Your task to perform on an android device: show emergency info Image 0: 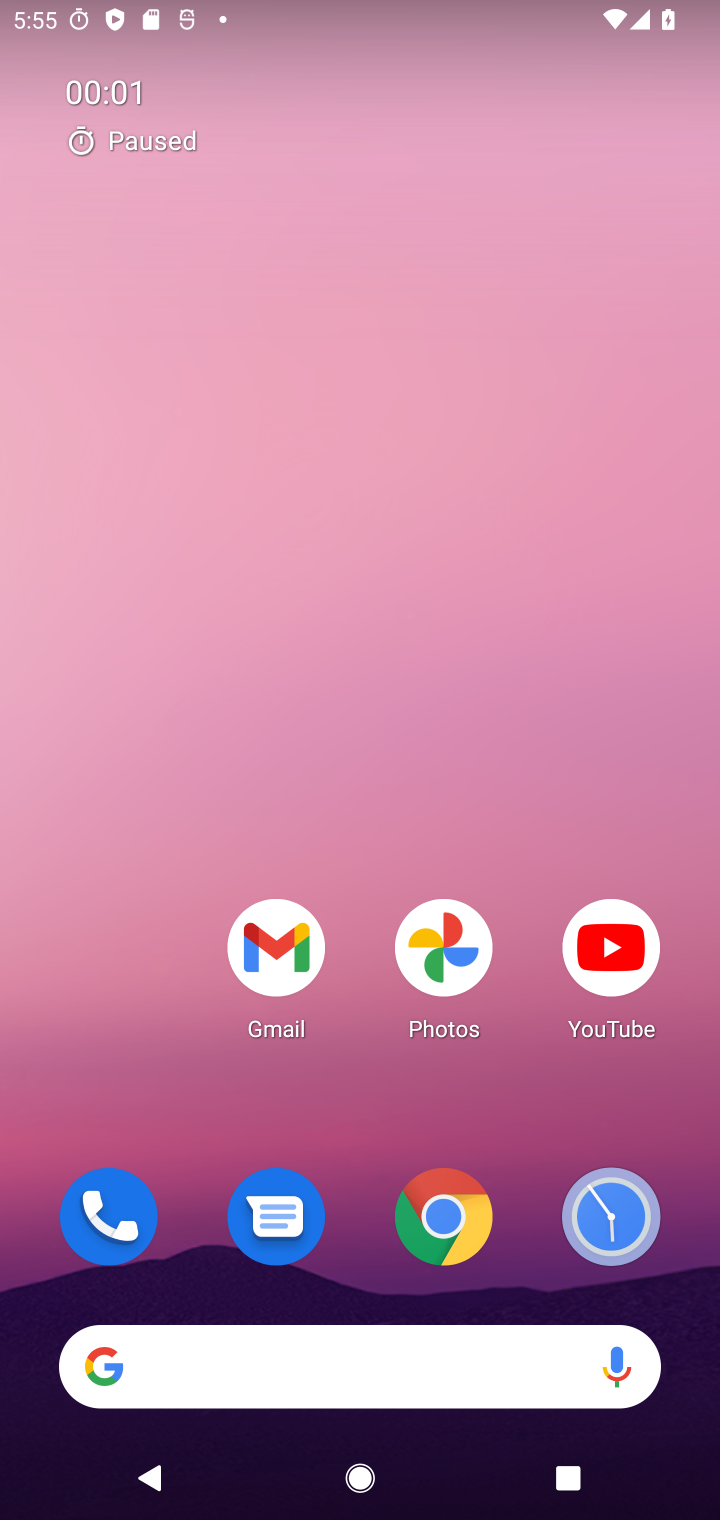
Step 0: drag from (343, 1105) to (501, 112)
Your task to perform on an android device: show emergency info Image 1: 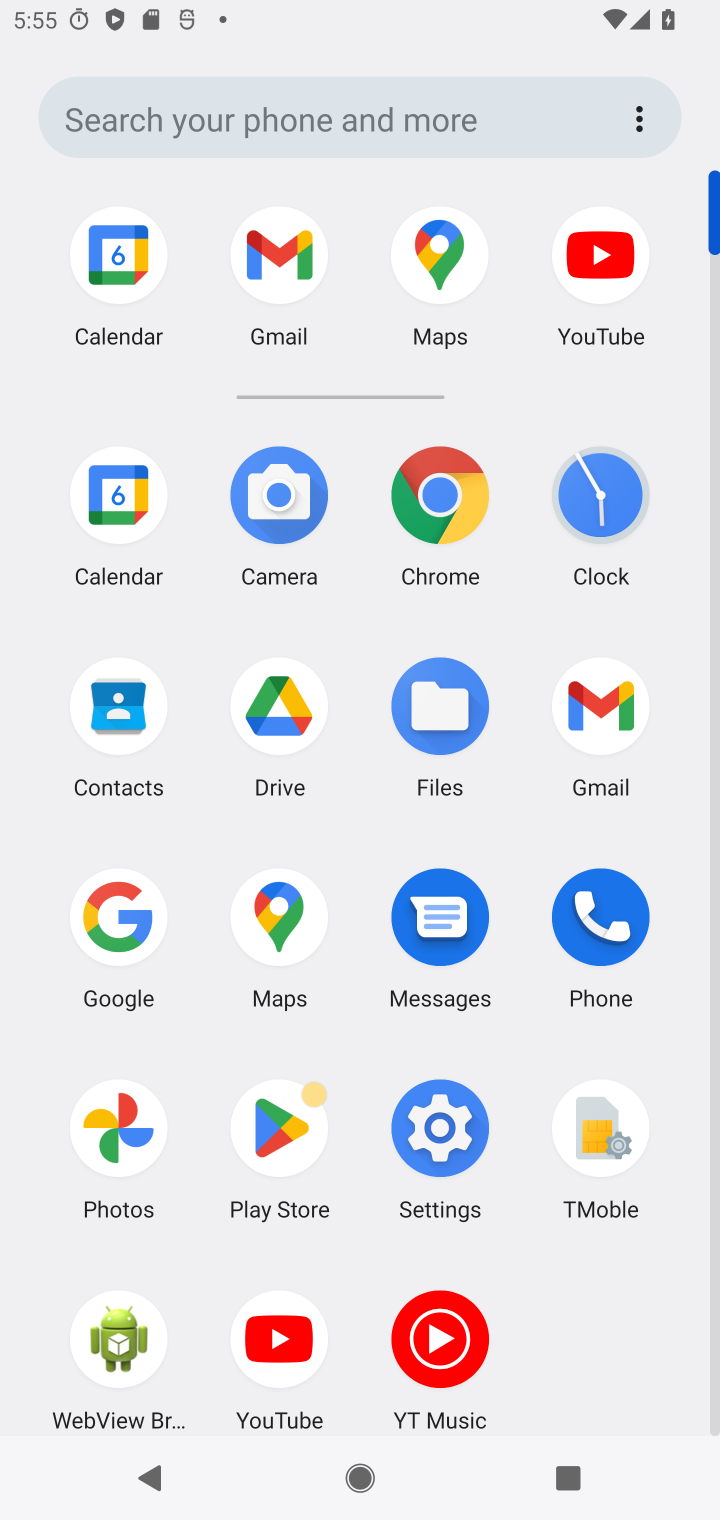
Step 1: click (463, 1123)
Your task to perform on an android device: show emergency info Image 2: 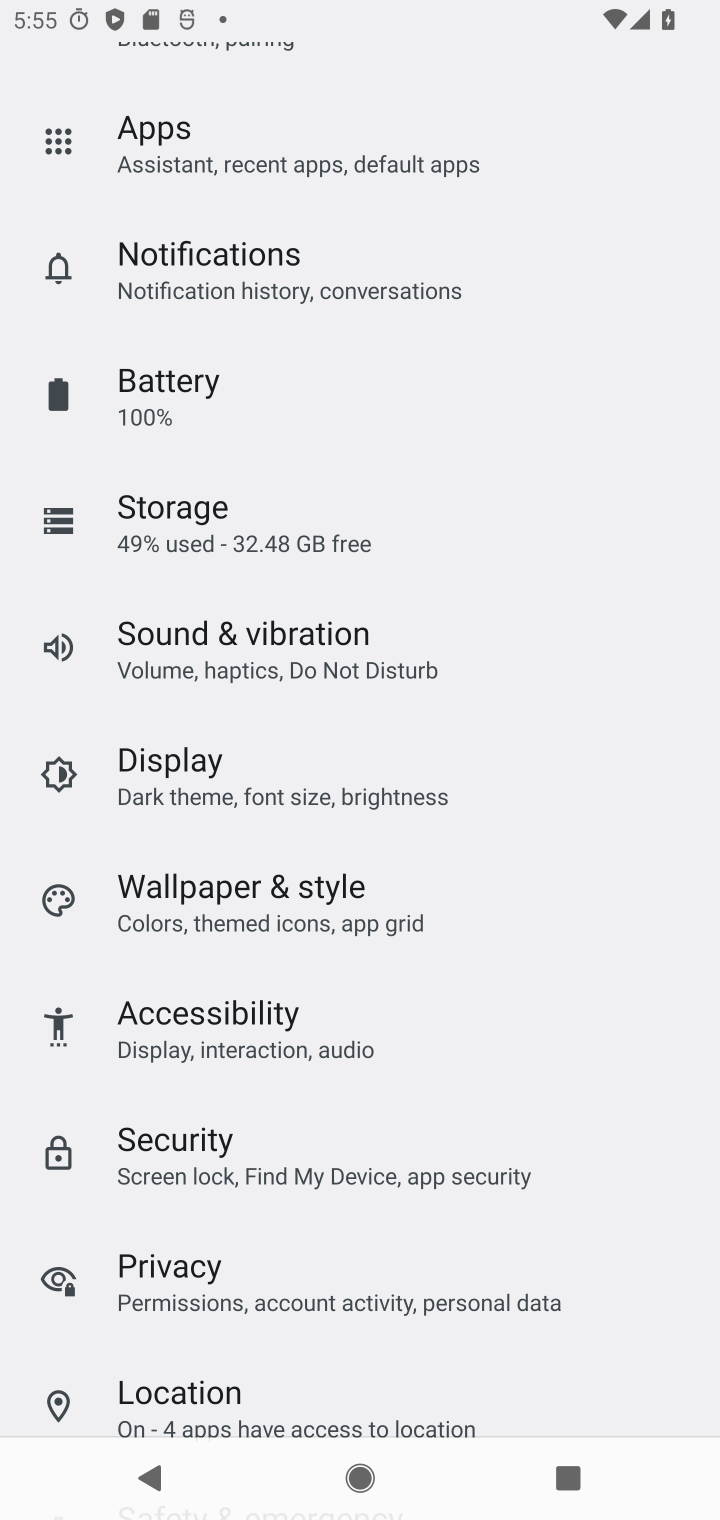
Step 2: drag from (360, 1196) to (405, 362)
Your task to perform on an android device: show emergency info Image 3: 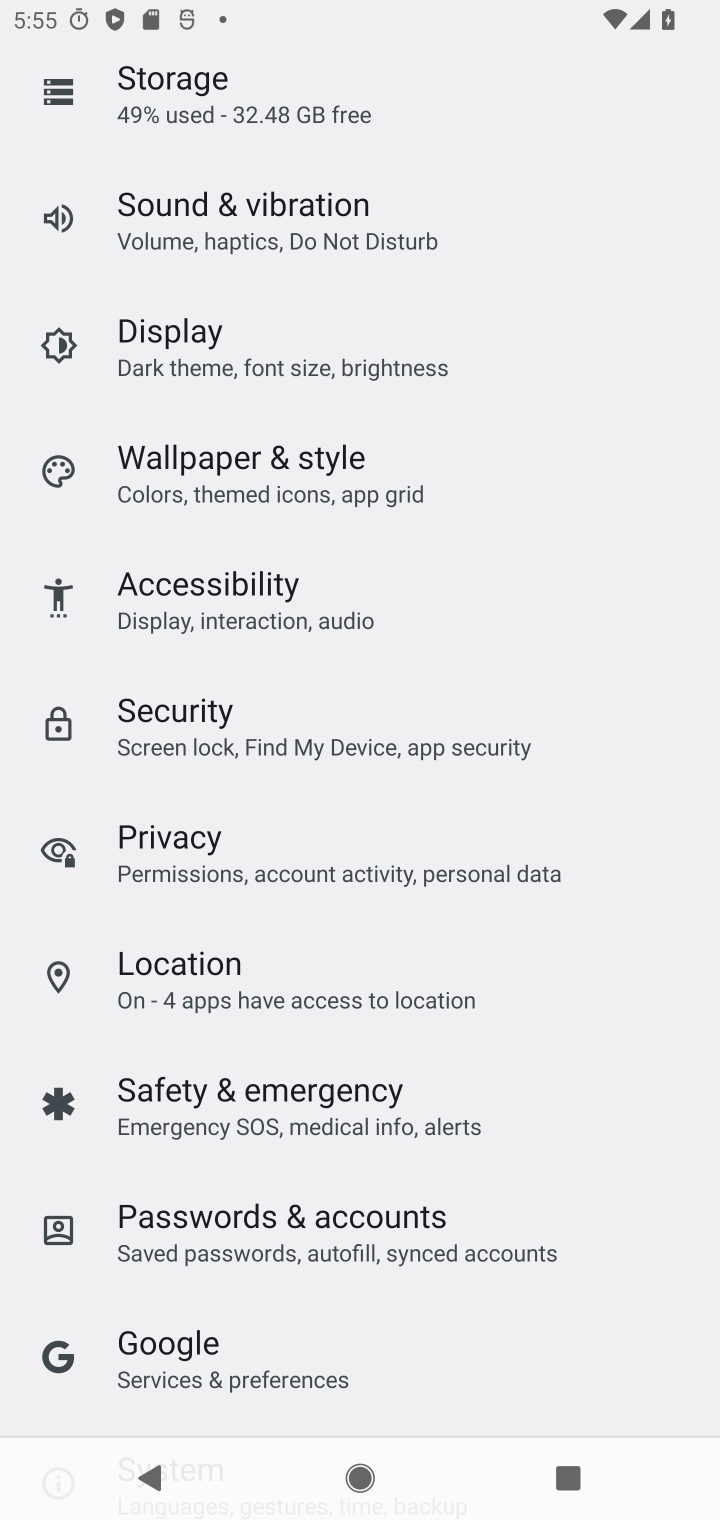
Step 3: drag from (473, 1319) to (536, 496)
Your task to perform on an android device: show emergency info Image 4: 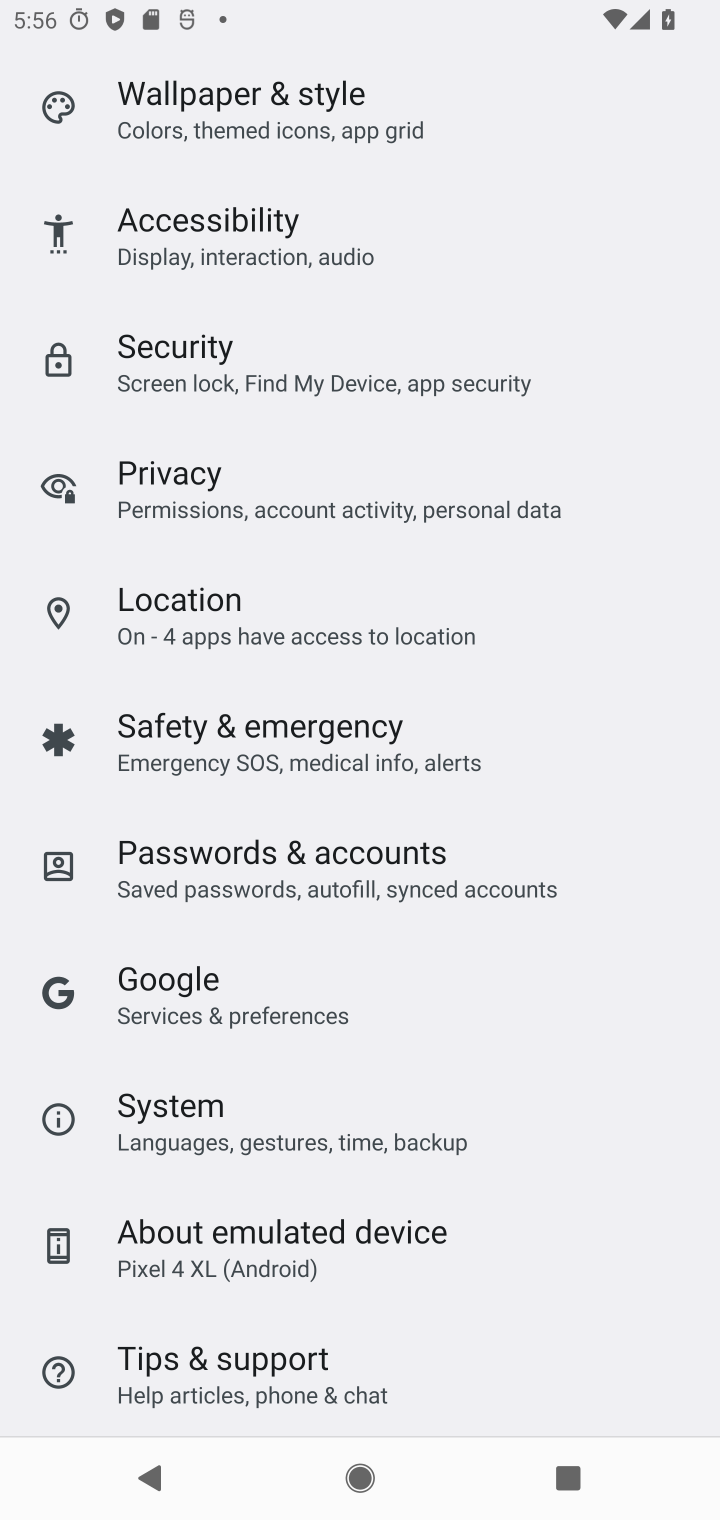
Step 4: click (288, 740)
Your task to perform on an android device: show emergency info Image 5: 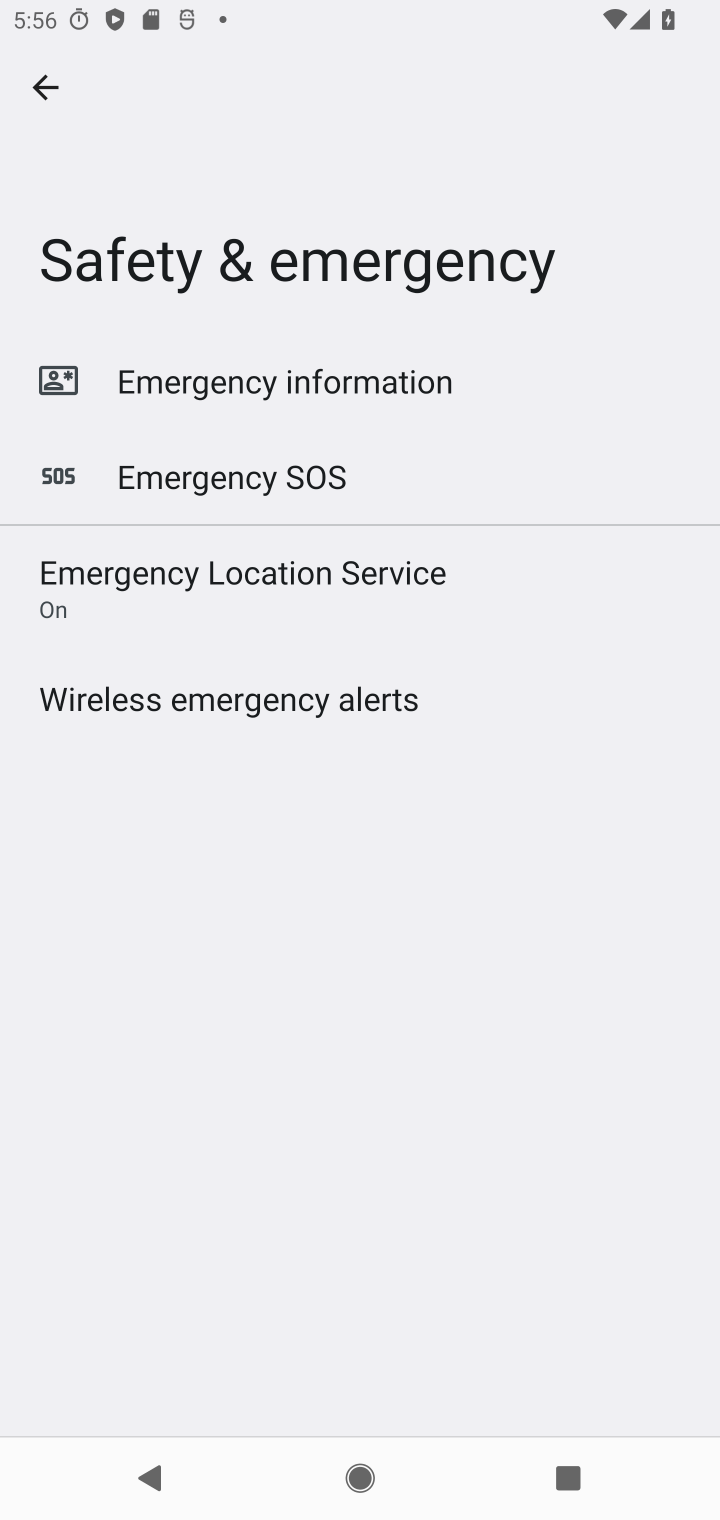
Step 5: click (267, 391)
Your task to perform on an android device: show emergency info Image 6: 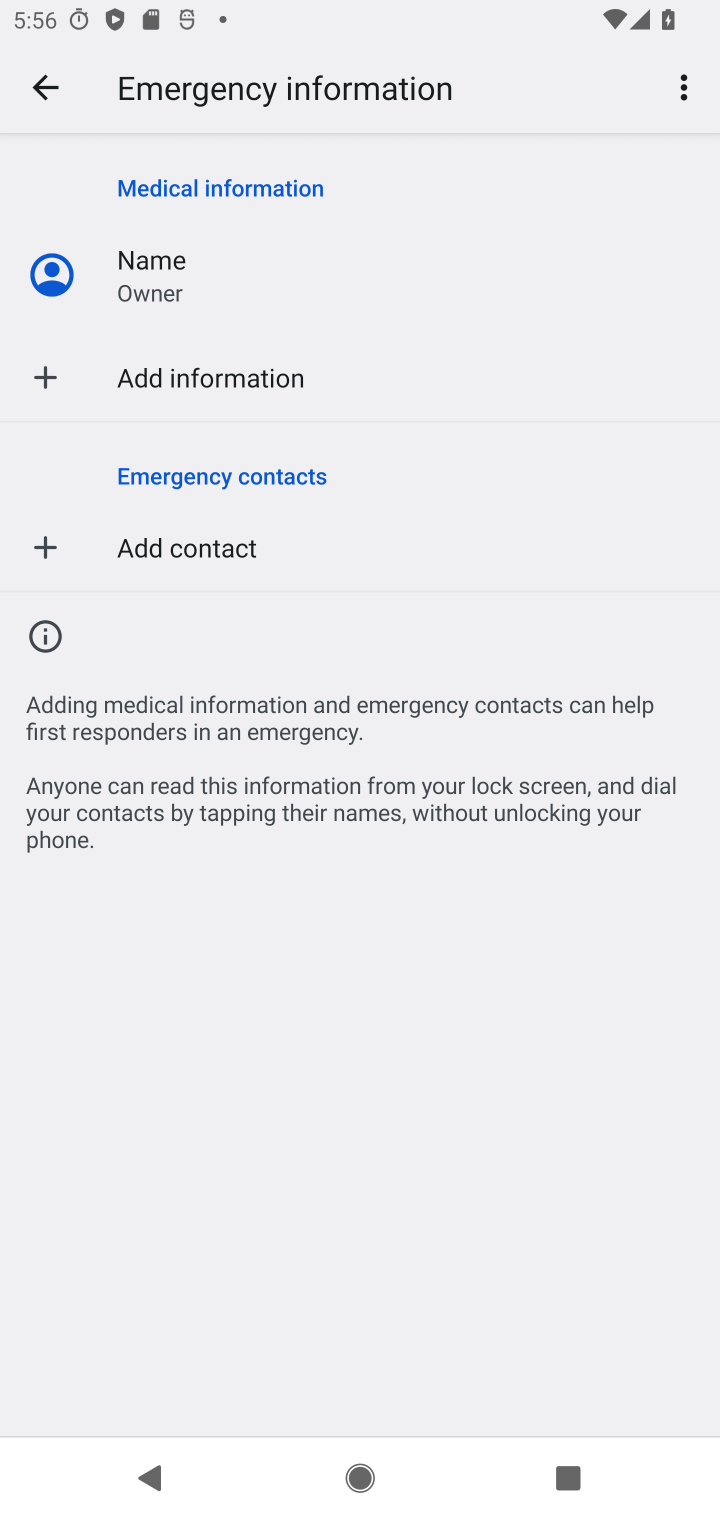
Step 6: task complete